Your task to perform on an android device: Do I have any events tomorrow? Image 0: 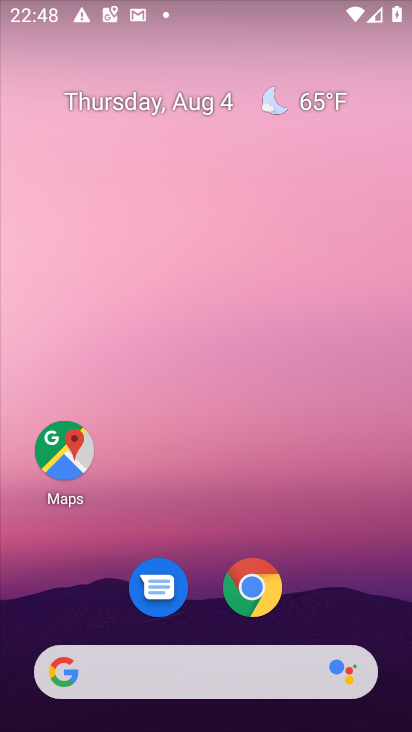
Step 0: click (262, 308)
Your task to perform on an android device: Do I have any events tomorrow? Image 1: 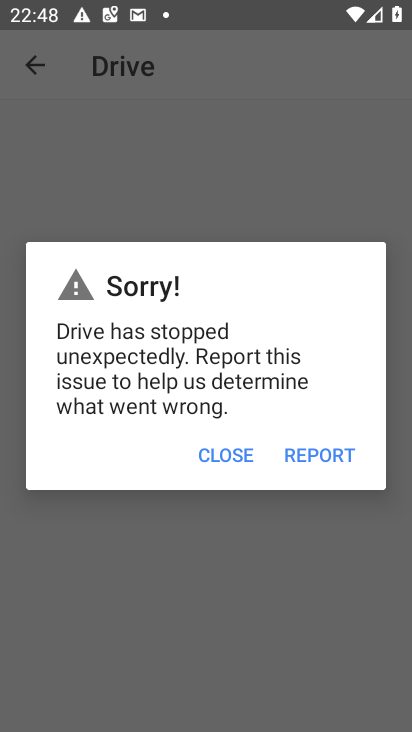
Step 1: press home button
Your task to perform on an android device: Do I have any events tomorrow? Image 2: 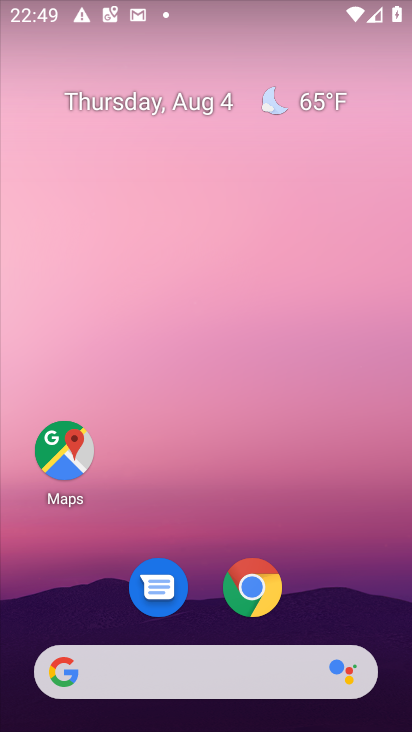
Step 2: drag from (221, 368) to (222, 122)
Your task to perform on an android device: Do I have any events tomorrow? Image 3: 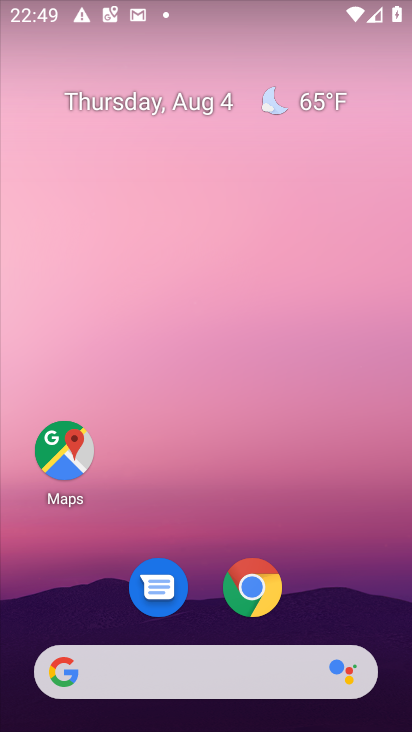
Step 3: drag from (175, 636) to (275, 111)
Your task to perform on an android device: Do I have any events tomorrow? Image 4: 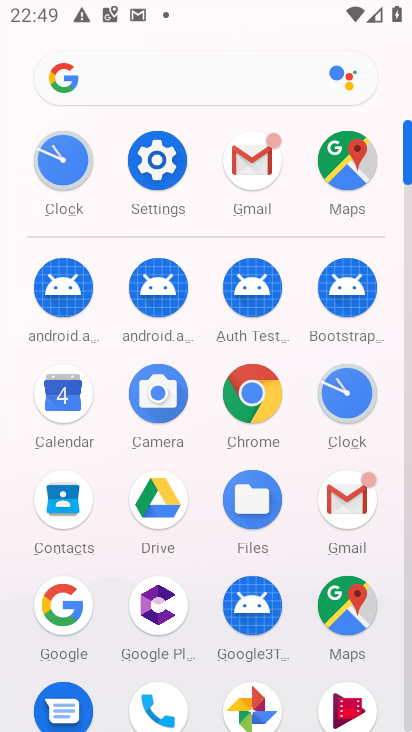
Step 4: click (251, 384)
Your task to perform on an android device: Do I have any events tomorrow? Image 5: 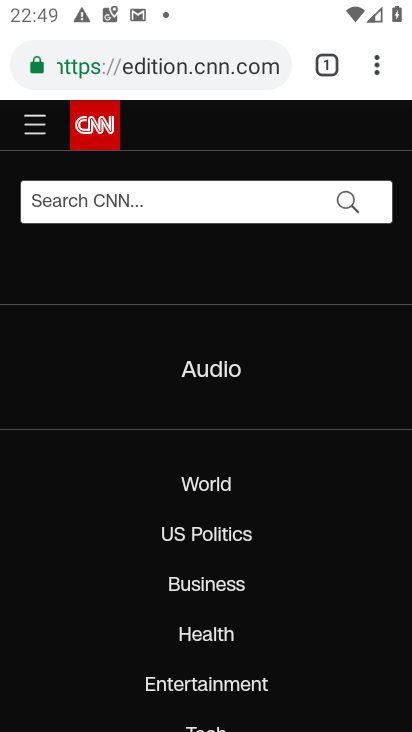
Step 5: click (378, 61)
Your task to perform on an android device: Do I have any events tomorrow? Image 6: 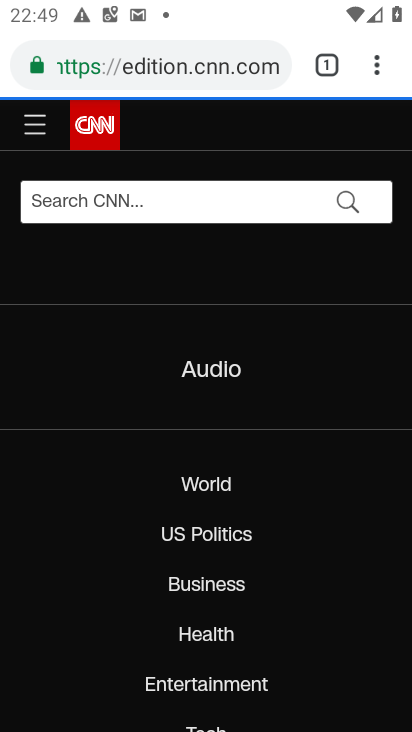
Step 6: click (382, 56)
Your task to perform on an android device: Do I have any events tomorrow? Image 7: 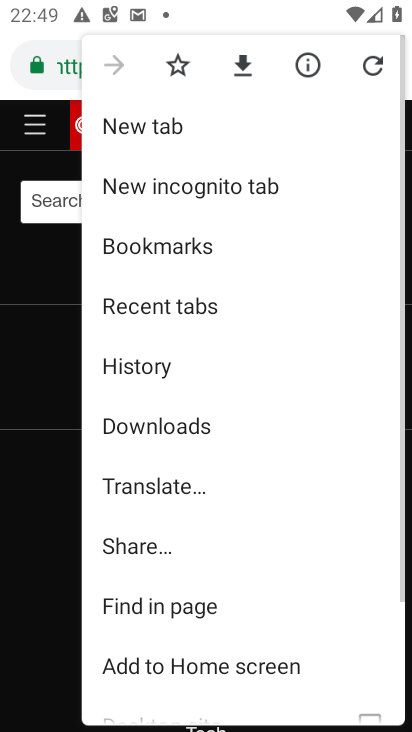
Step 7: click (182, 133)
Your task to perform on an android device: Do I have any events tomorrow? Image 8: 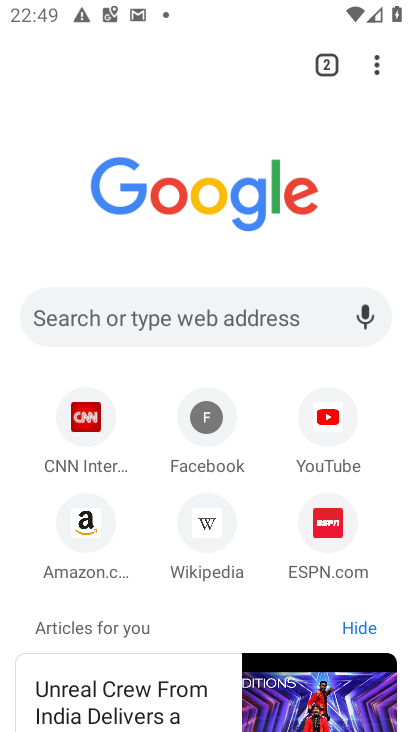
Step 8: click (245, 312)
Your task to perform on an android device: Do I have any events tomorrow? Image 9: 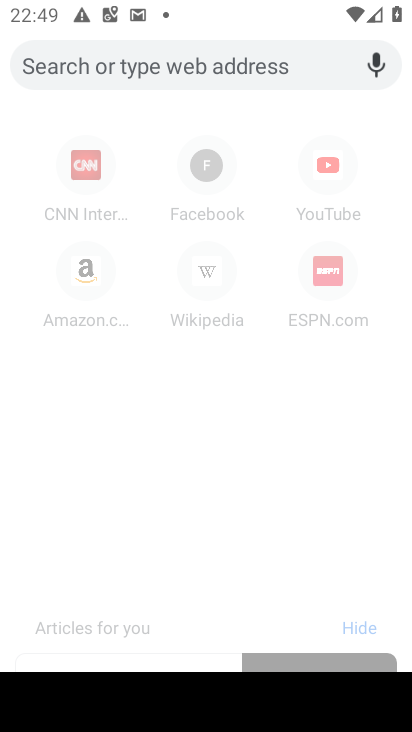
Step 9: type "Do I have any events tomorrow "
Your task to perform on an android device: Do I have any events tomorrow? Image 10: 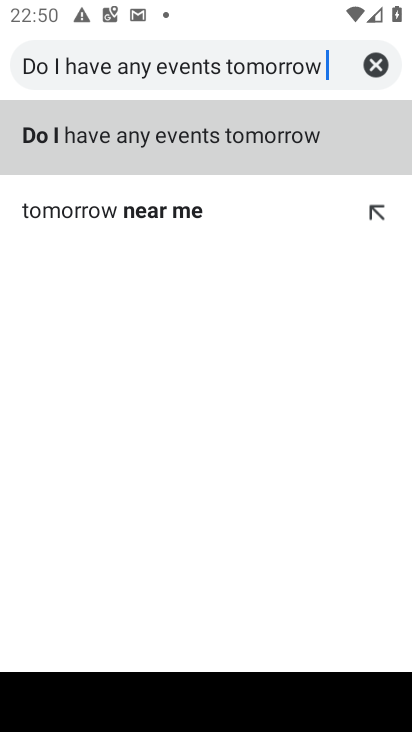
Step 10: click (303, 142)
Your task to perform on an android device: Do I have any events tomorrow? Image 11: 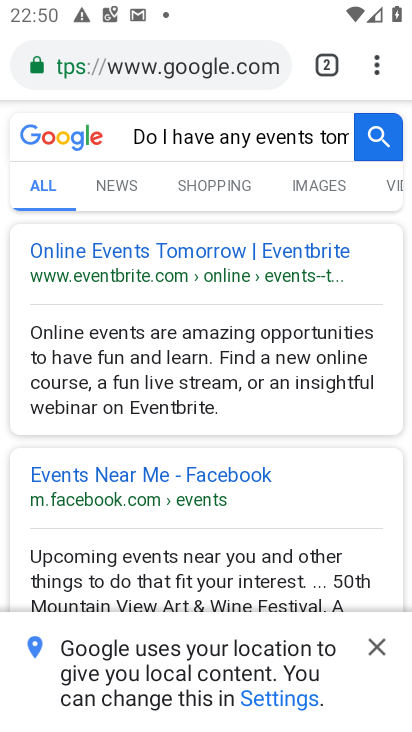
Step 11: task complete